Your task to perform on an android device: Do I have any events tomorrow? Image 0: 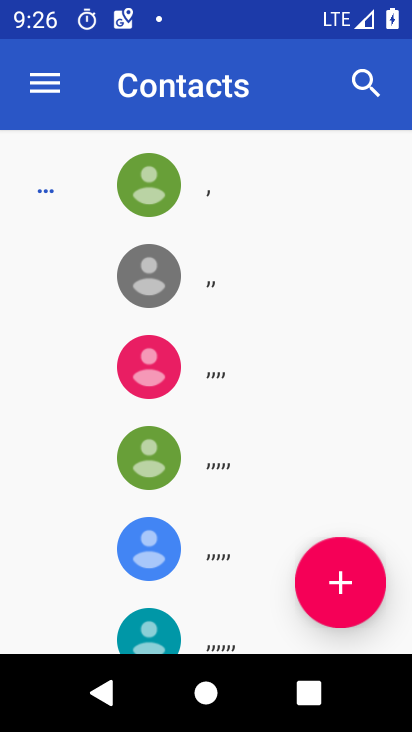
Step 0: press home button
Your task to perform on an android device: Do I have any events tomorrow? Image 1: 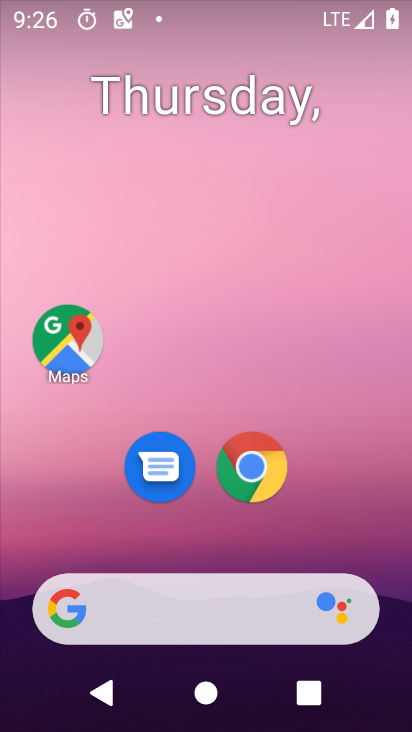
Step 1: click (378, 410)
Your task to perform on an android device: Do I have any events tomorrow? Image 2: 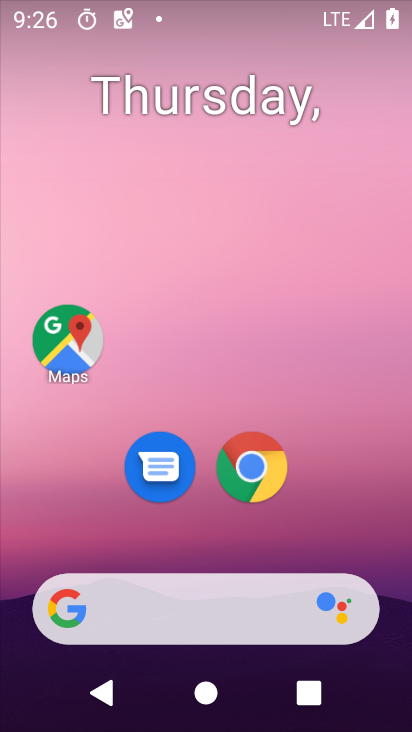
Step 2: drag from (340, 441) to (328, 110)
Your task to perform on an android device: Do I have any events tomorrow? Image 3: 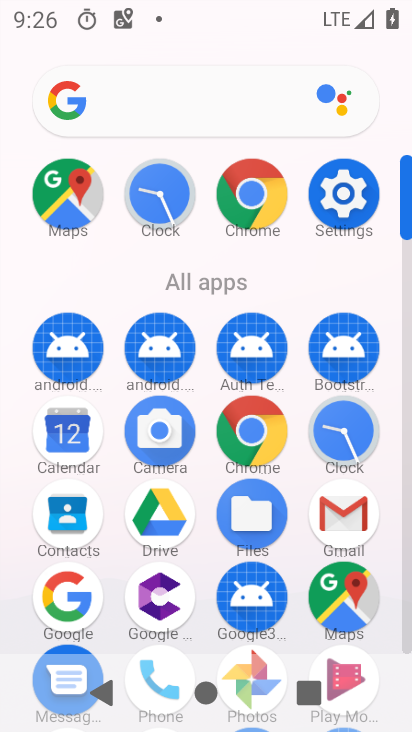
Step 3: click (63, 442)
Your task to perform on an android device: Do I have any events tomorrow? Image 4: 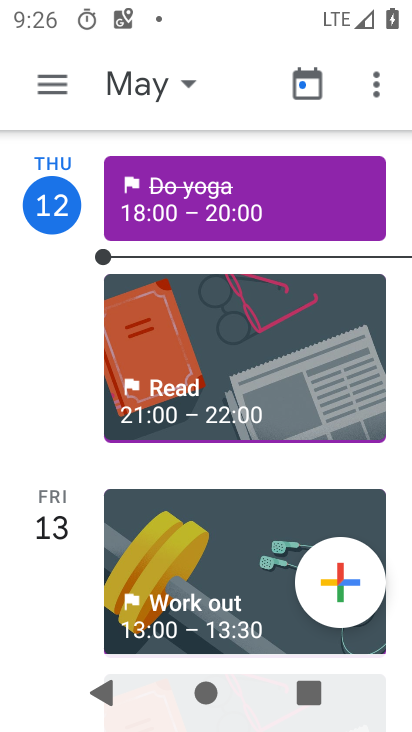
Step 4: click (56, 75)
Your task to perform on an android device: Do I have any events tomorrow? Image 5: 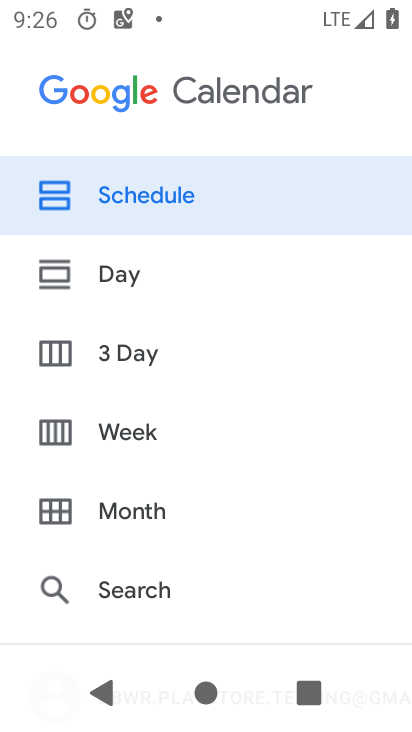
Step 5: click (182, 199)
Your task to perform on an android device: Do I have any events tomorrow? Image 6: 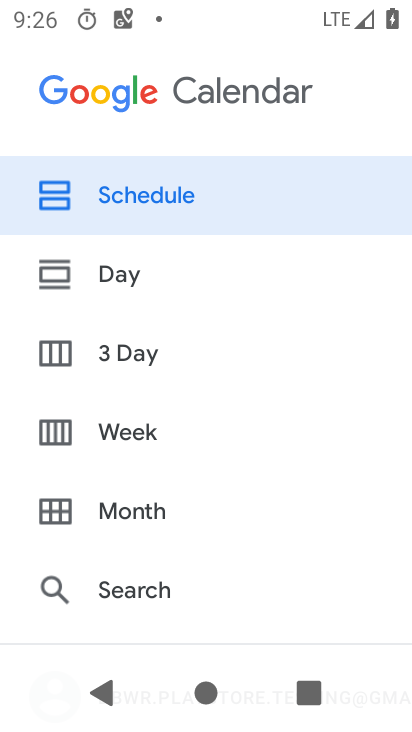
Step 6: click (181, 186)
Your task to perform on an android device: Do I have any events tomorrow? Image 7: 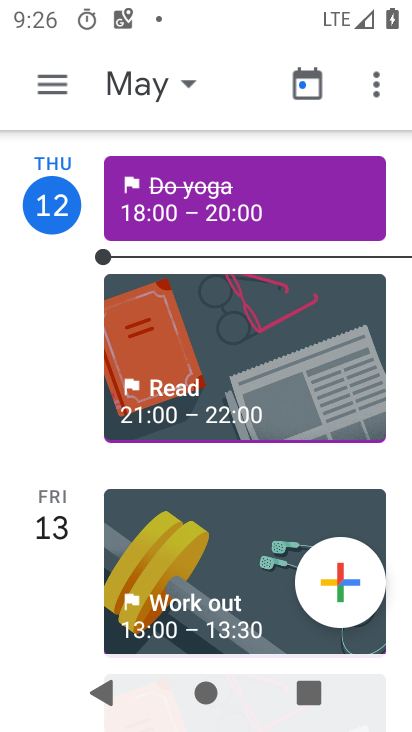
Step 7: task complete